Your task to perform on an android device: allow notifications from all sites in the chrome app Image 0: 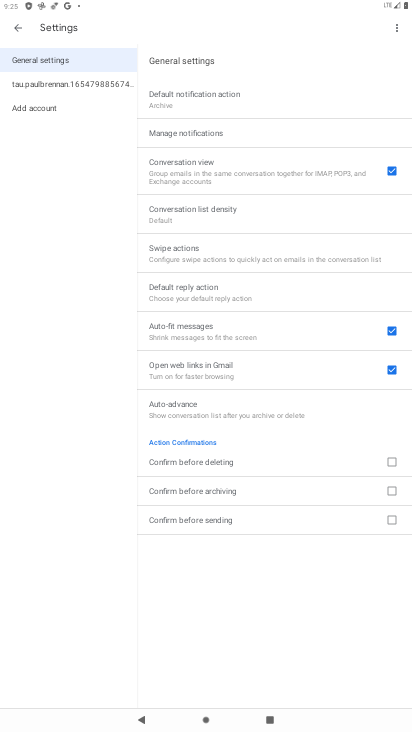
Step 0: press home button
Your task to perform on an android device: allow notifications from all sites in the chrome app Image 1: 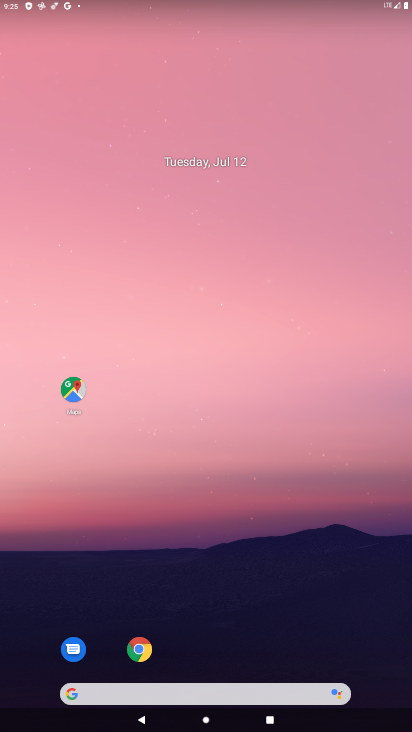
Step 1: drag from (237, 653) to (167, 295)
Your task to perform on an android device: allow notifications from all sites in the chrome app Image 2: 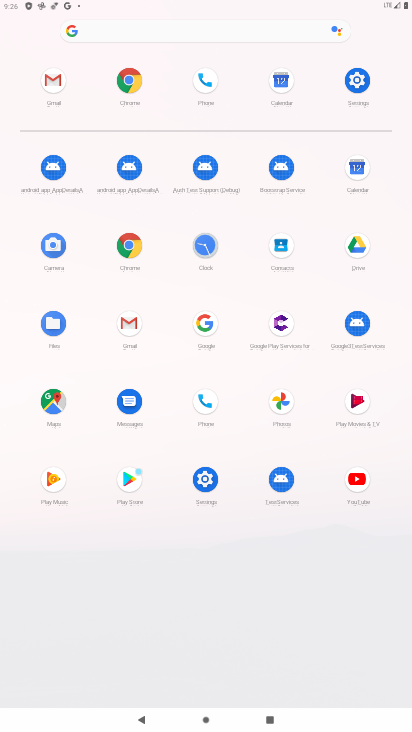
Step 2: click (124, 90)
Your task to perform on an android device: allow notifications from all sites in the chrome app Image 3: 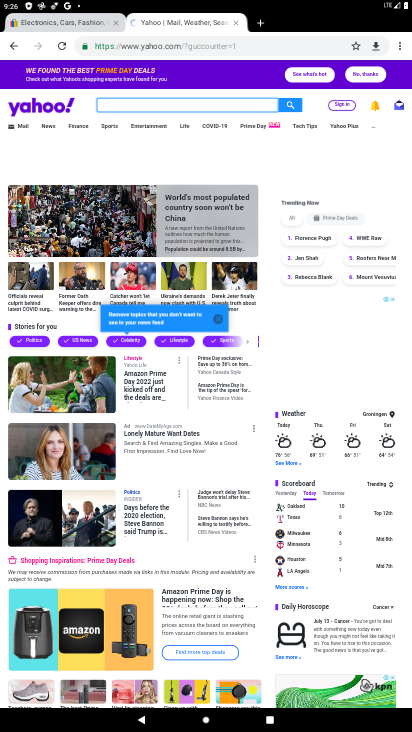
Step 3: click (401, 43)
Your task to perform on an android device: allow notifications from all sites in the chrome app Image 4: 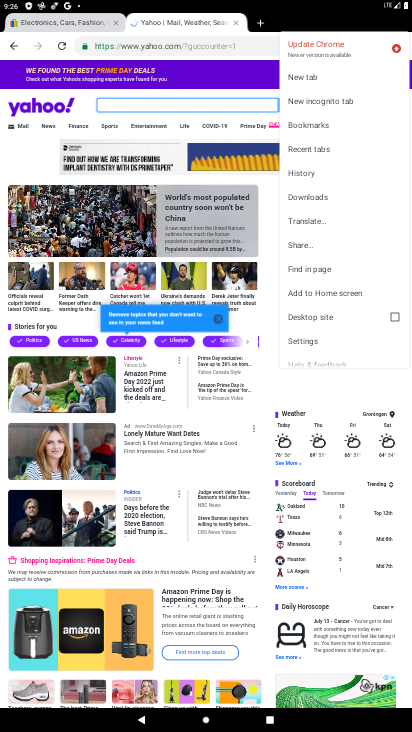
Step 4: click (314, 349)
Your task to perform on an android device: allow notifications from all sites in the chrome app Image 5: 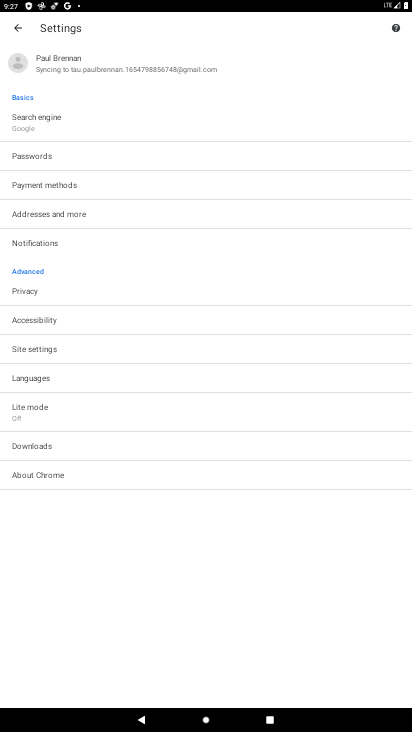
Step 5: click (94, 249)
Your task to perform on an android device: allow notifications from all sites in the chrome app Image 6: 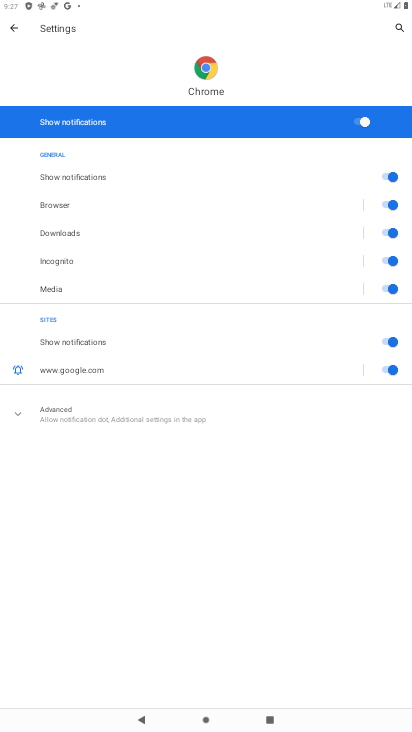
Step 6: task complete